Your task to perform on an android device: Open calendar and show me the second week of next month Image 0: 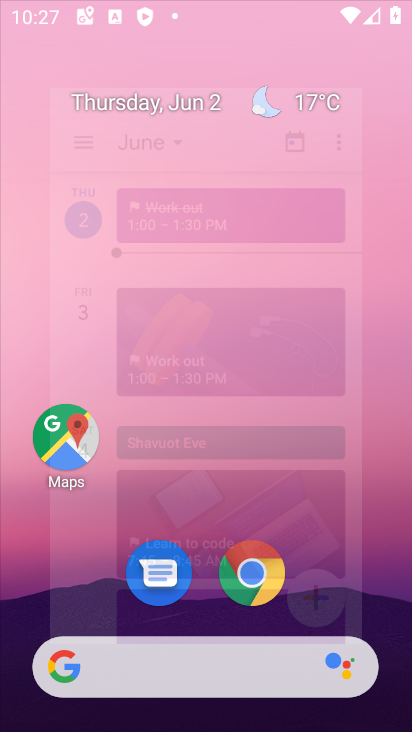
Step 0: drag from (319, 531) to (4, 58)
Your task to perform on an android device: Open calendar and show me the second week of next month Image 1: 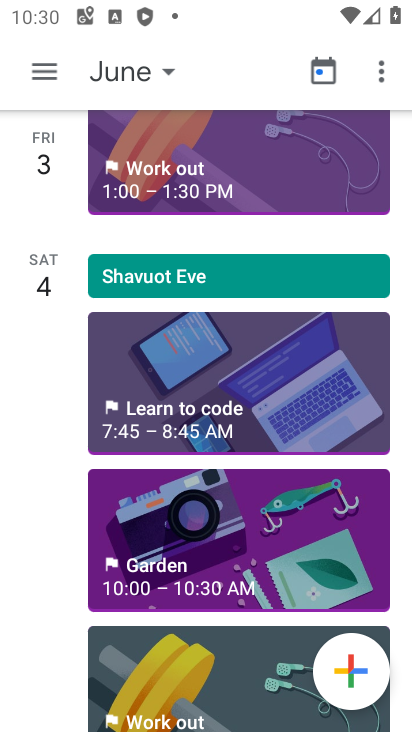
Step 1: click (110, 88)
Your task to perform on an android device: Open calendar and show me the second week of next month Image 2: 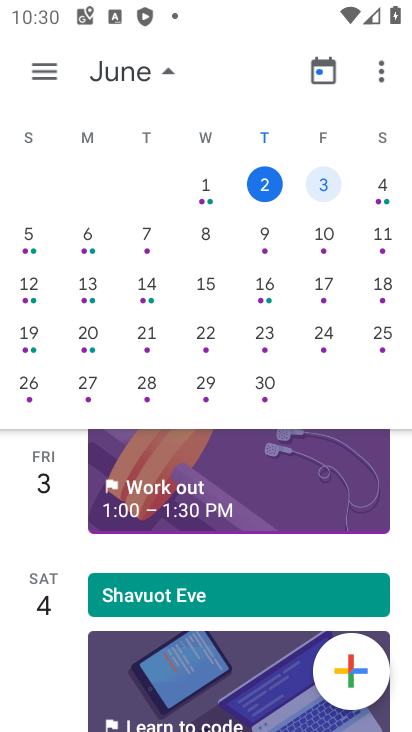
Step 2: drag from (300, 315) to (0, 363)
Your task to perform on an android device: Open calendar and show me the second week of next month Image 3: 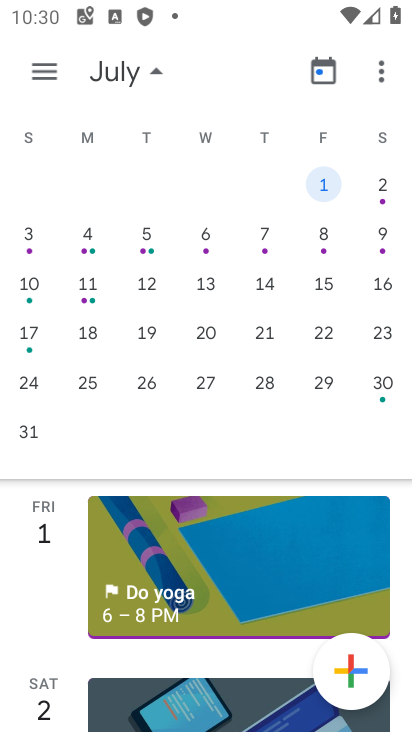
Step 3: click (252, 280)
Your task to perform on an android device: Open calendar and show me the second week of next month Image 4: 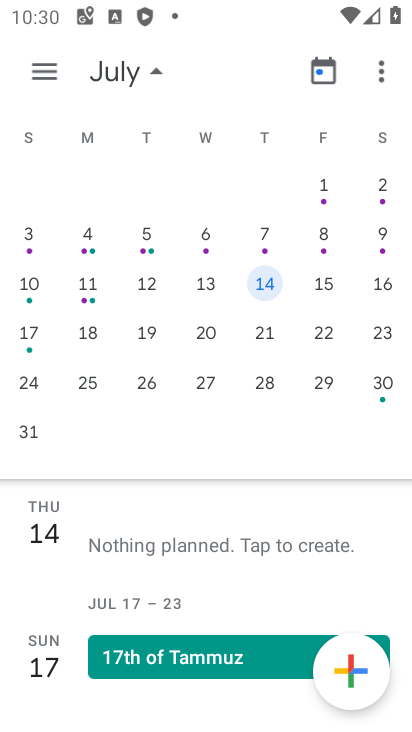
Step 4: task complete